Your task to perform on an android device: install app "Facebook Lite" Image 0: 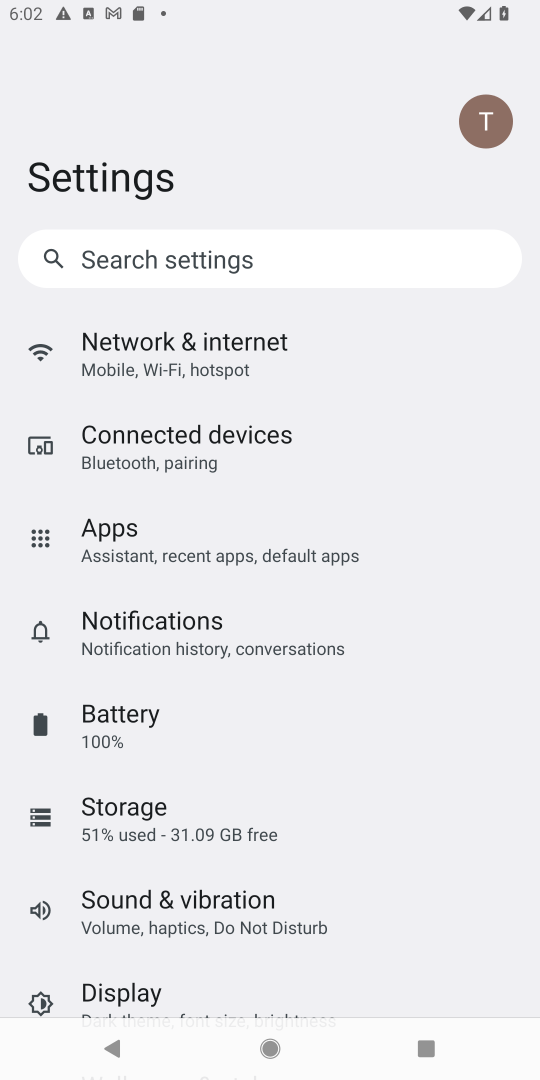
Step 0: press home button
Your task to perform on an android device: install app "Facebook Lite" Image 1: 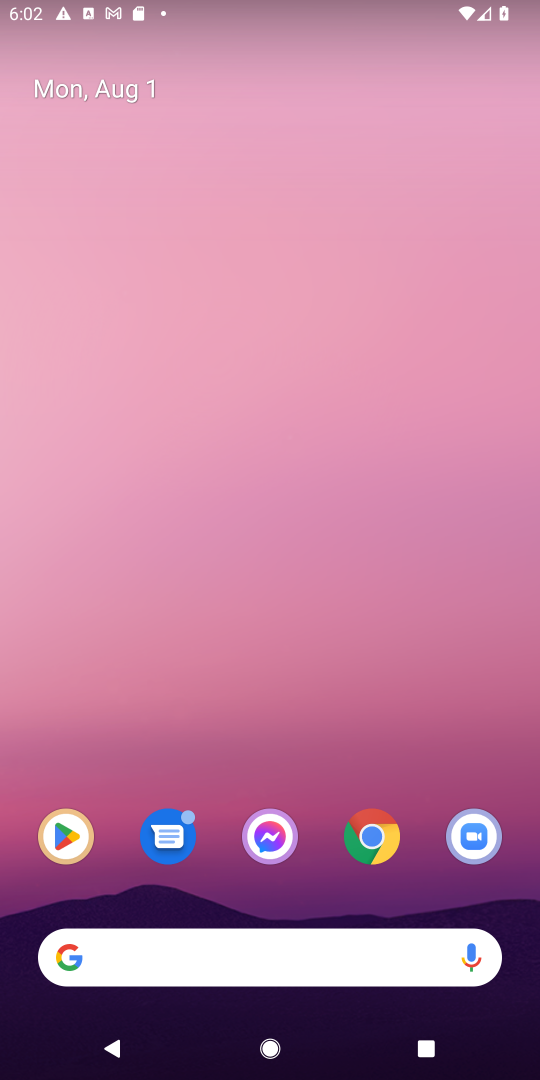
Step 1: click (61, 837)
Your task to perform on an android device: install app "Facebook Lite" Image 2: 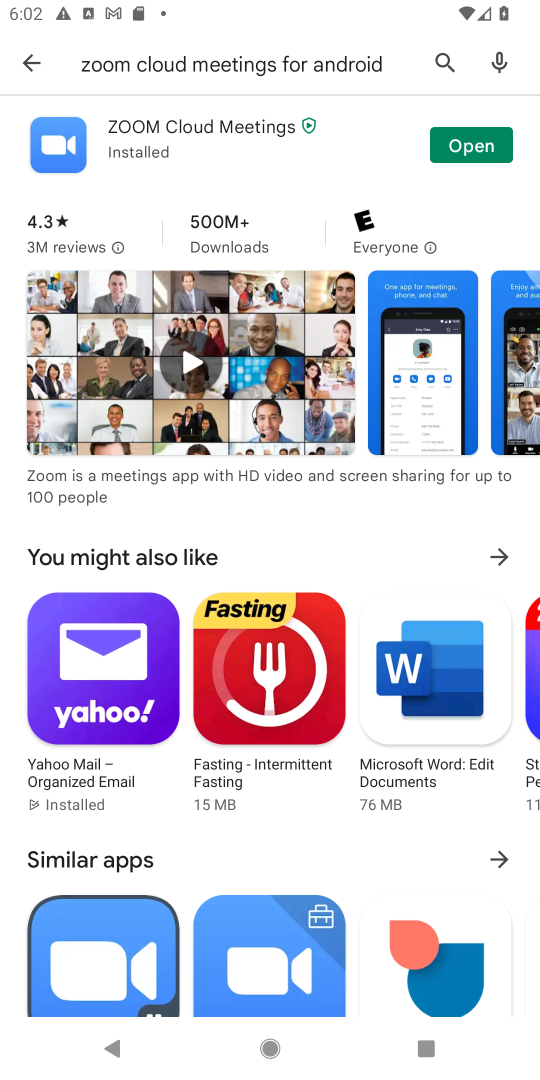
Step 2: click (443, 46)
Your task to perform on an android device: install app "Facebook Lite" Image 3: 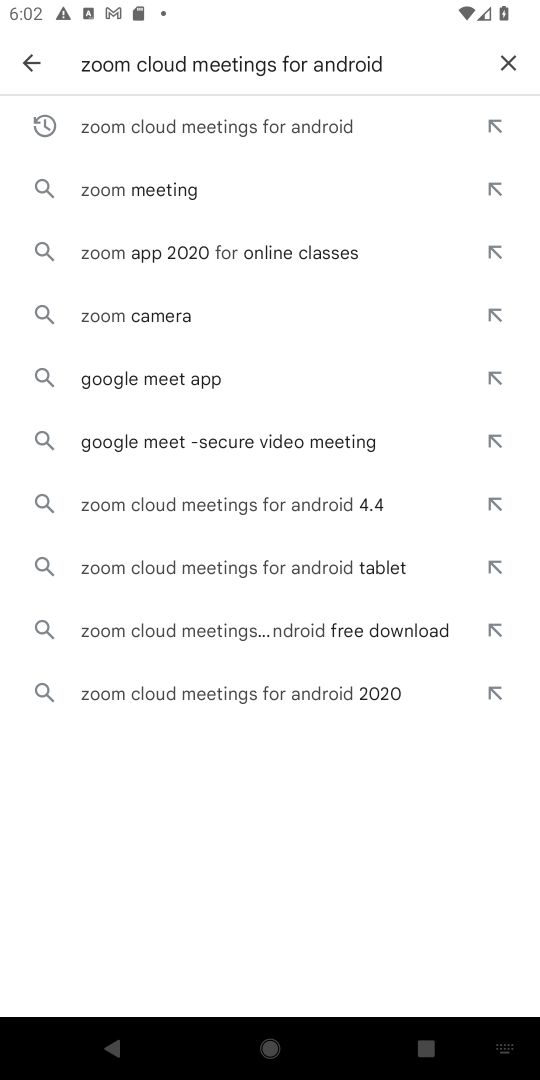
Step 3: click (501, 58)
Your task to perform on an android device: install app "Facebook Lite" Image 4: 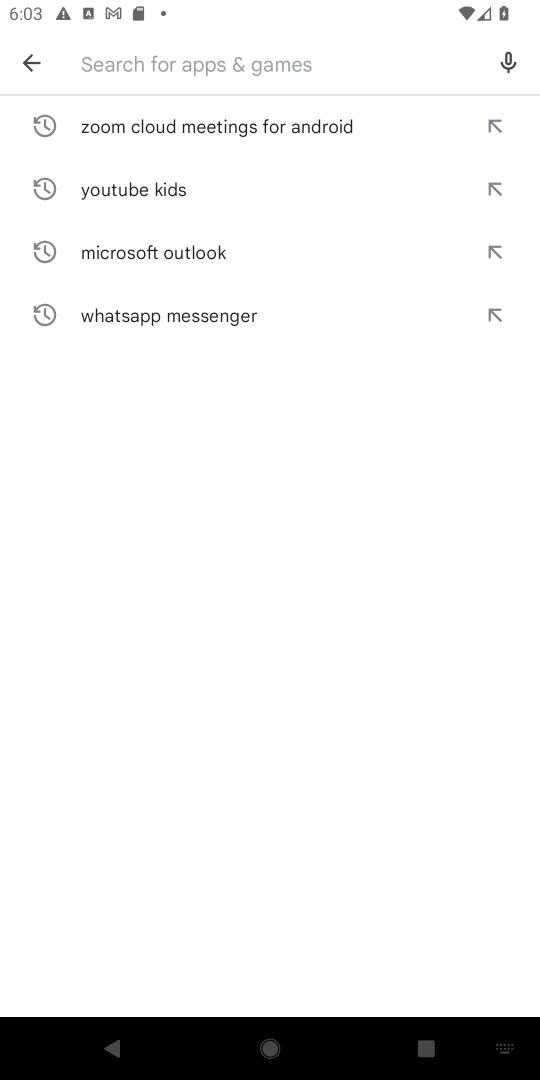
Step 4: type "Facebook Lite"
Your task to perform on an android device: install app "Facebook Lite" Image 5: 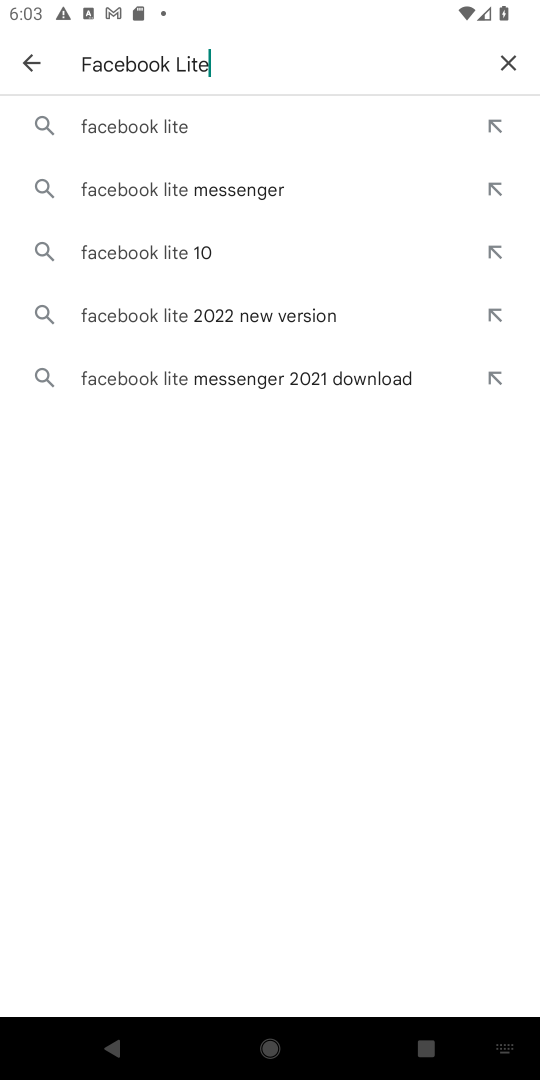
Step 5: click (175, 130)
Your task to perform on an android device: install app "Facebook Lite" Image 6: 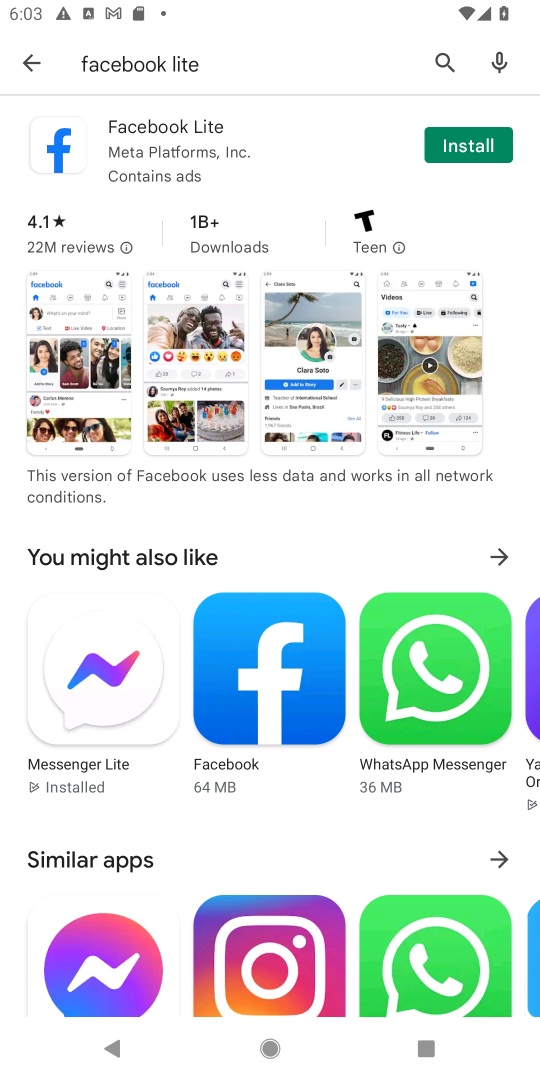
Step 6: click (464, 146)
Your task to perform on an android device: install app "Facebook Lite" Image 7: 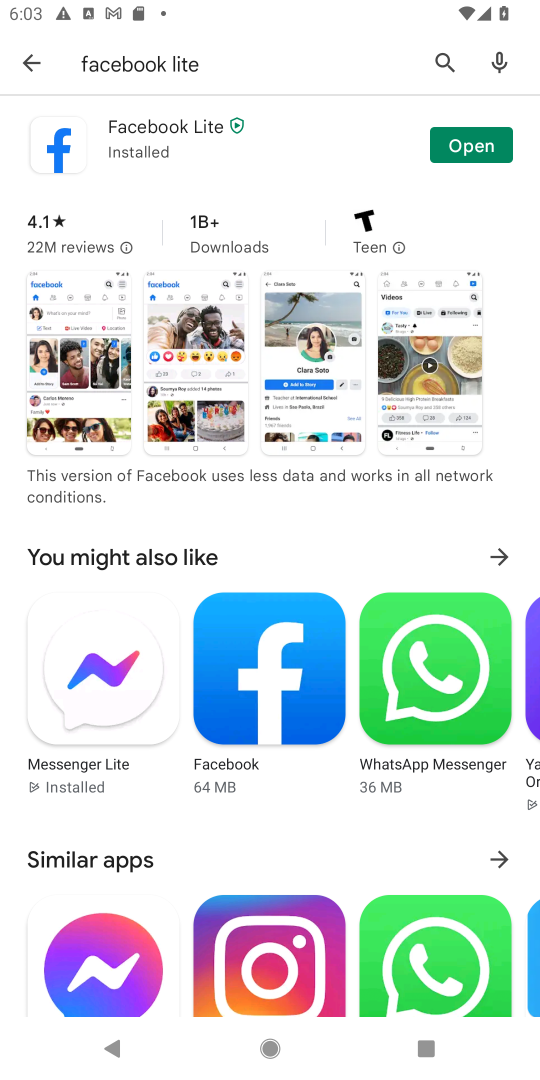
Step 7: task complete